Your task to perform on an android device: change timer sound Image 0: 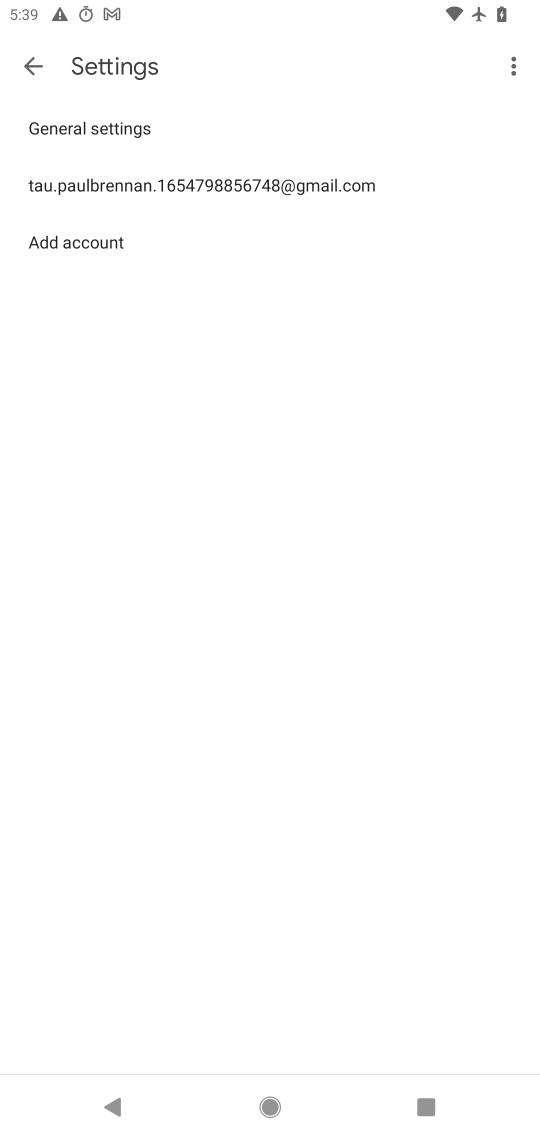
Step 0: press home button
Your task to perform on an android device: change timer sound Image 1: 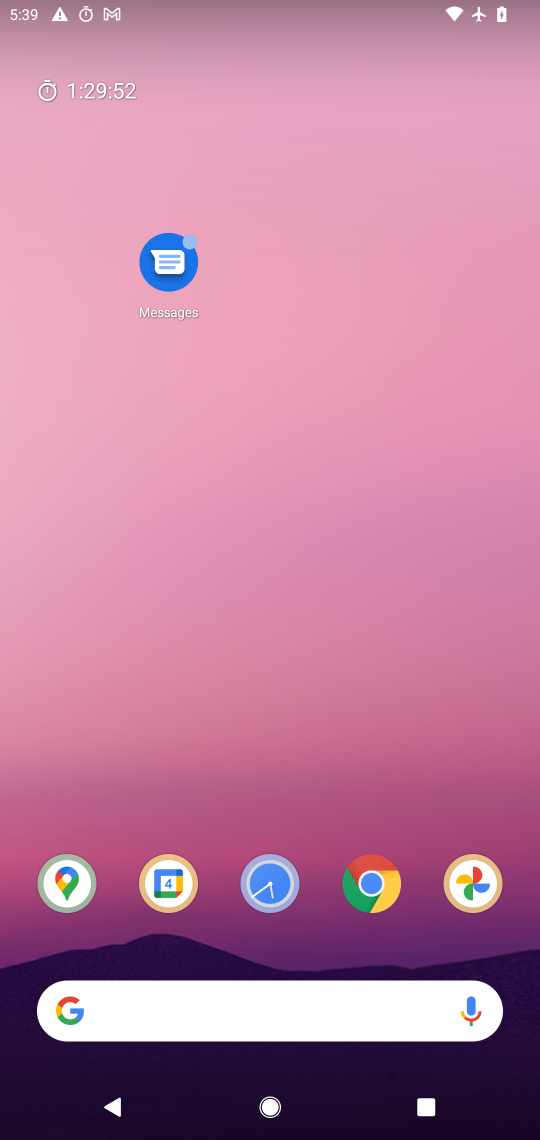
Step 1: drag from (317, 954) to (299, 0)
Your task to perform on an android device: change timer sound Image 2: 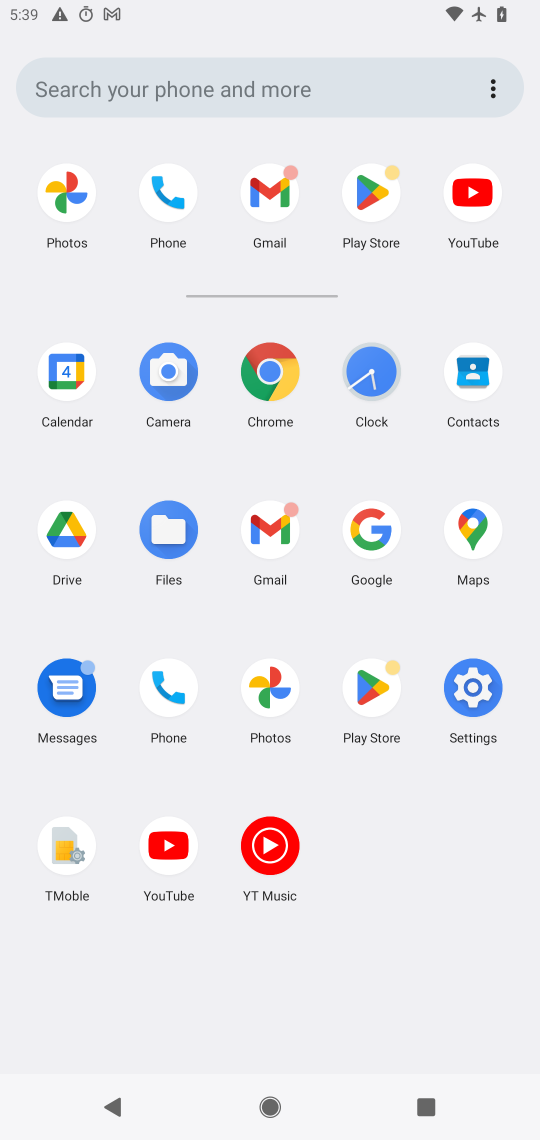
Step 2: click (374, 372)
Your task to perform on an android device: change timer sound Image 3: 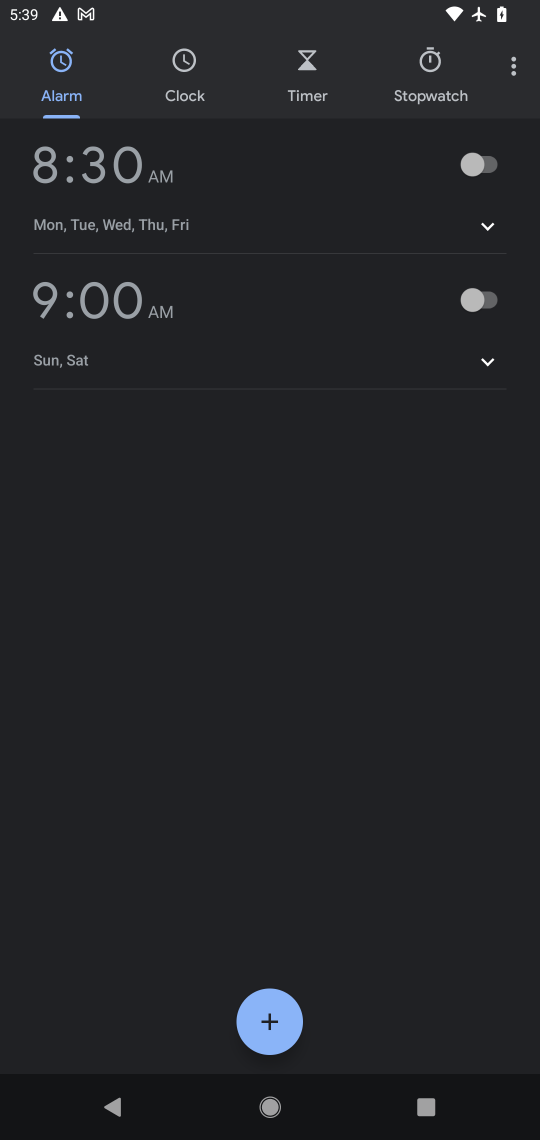
Step 3: click (516, 75)
Your task to perform on an android device: change timer sound Image 4: 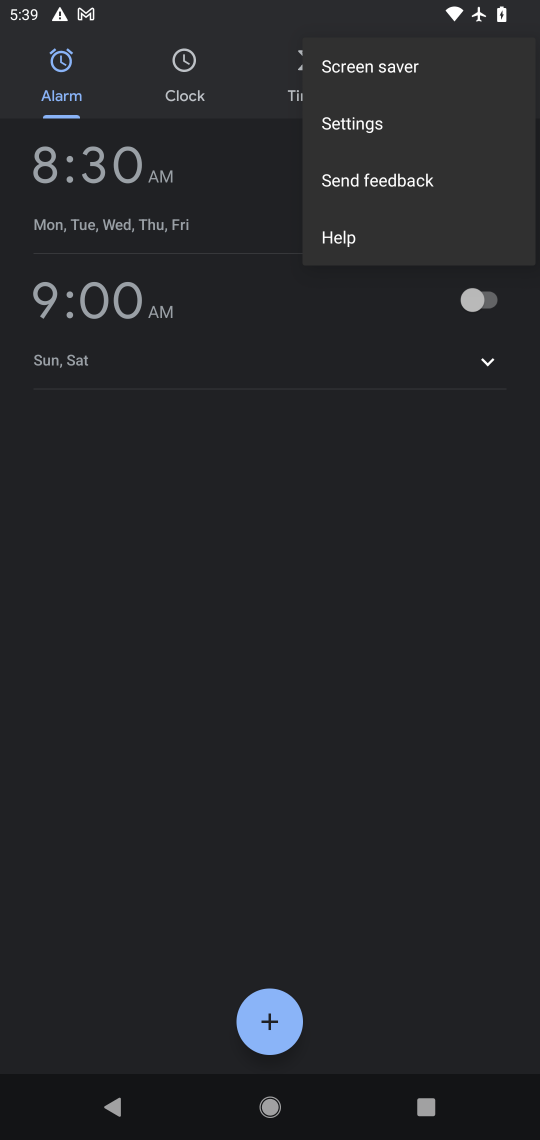
Step 4: click (375, 125)
Your task to perform on an android device: change timer sound Image 5: 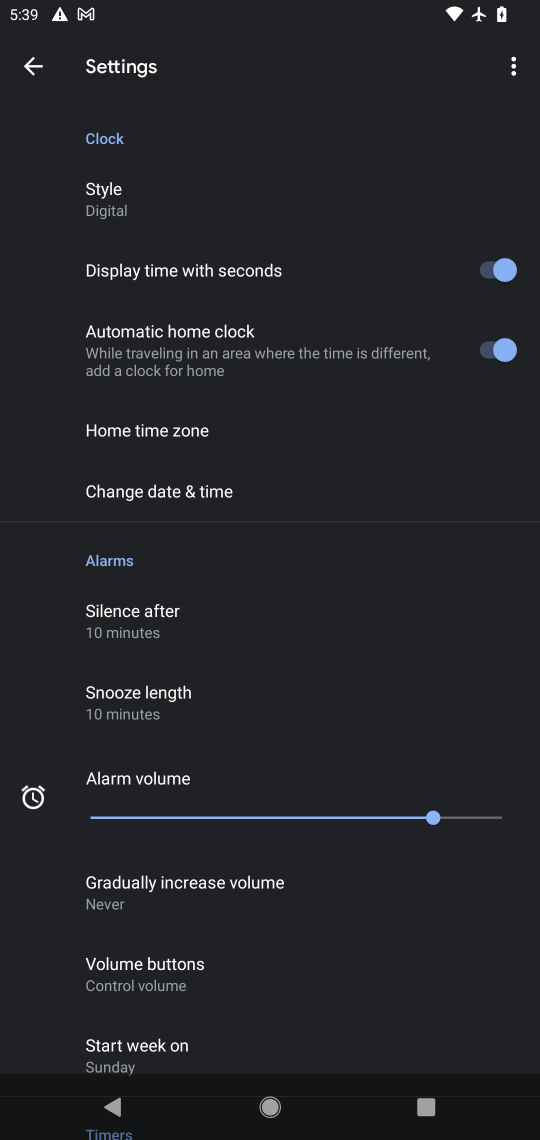
Step 5: drag from (238, 984) to (244, 643)
Your task to perform on an android device: change timer sound Image 6: 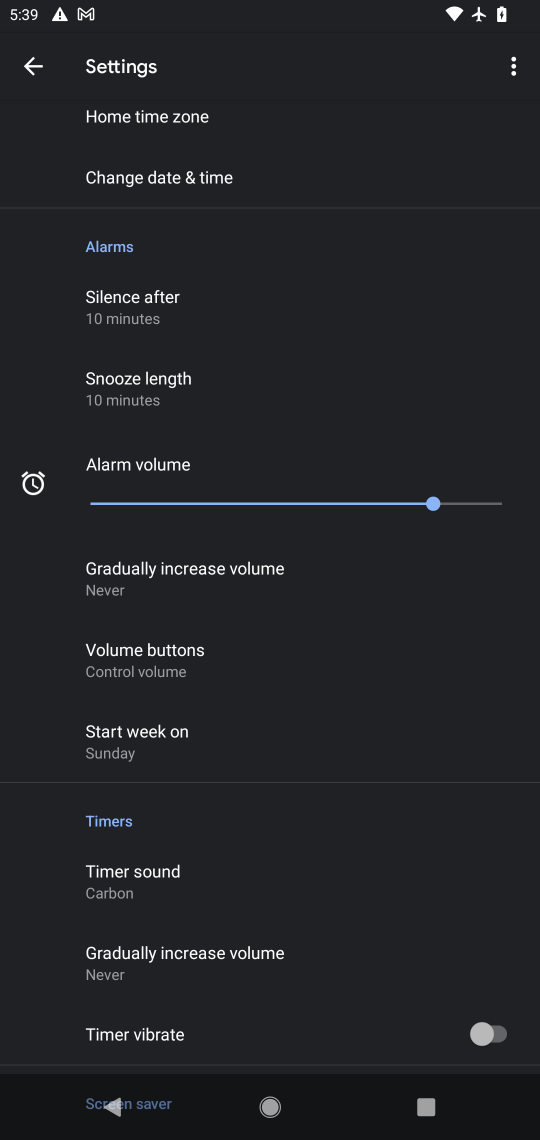
Step 6: click (164, 873)
Your task to perform on an android device: change timer sound Image 7: 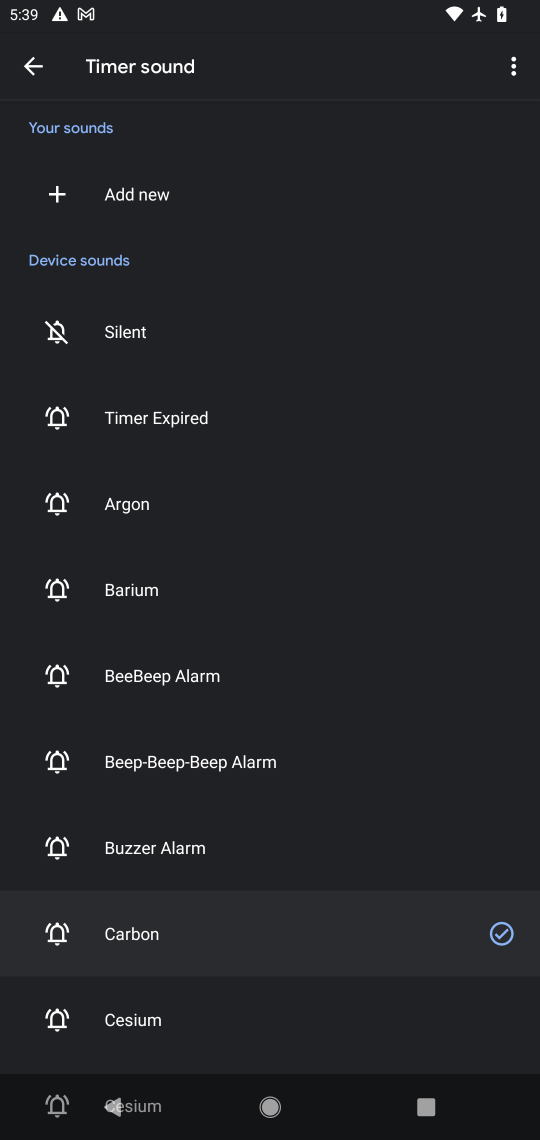
Step 7: click (147, 669)
Your task to perform on an android device: change timer sound Image 8: 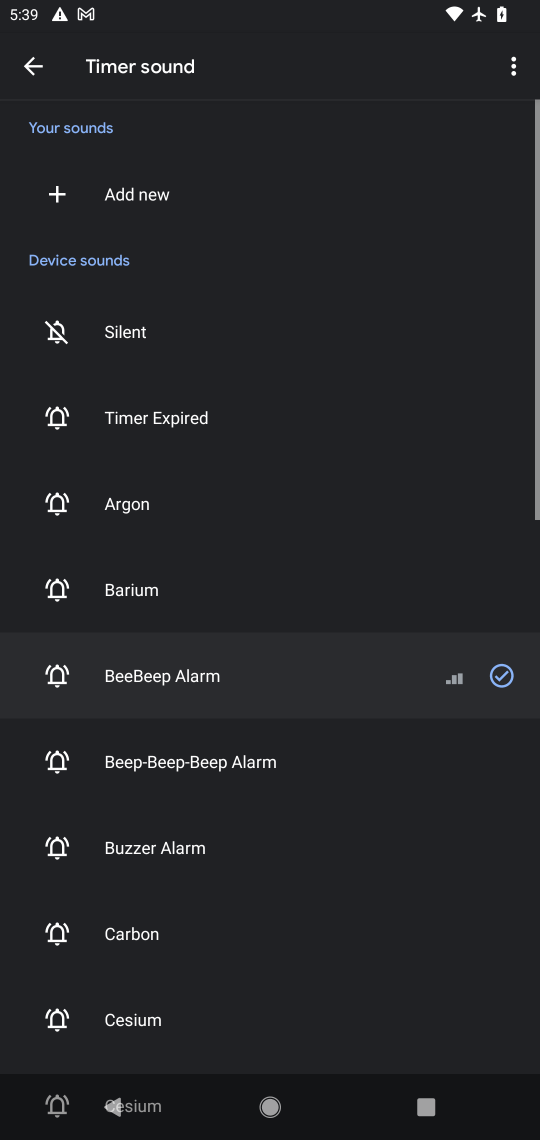
Step 8: task complete